Your task to perform on an android device: Open the calendar app, open the side menu, and click the "Day" option Image 0: 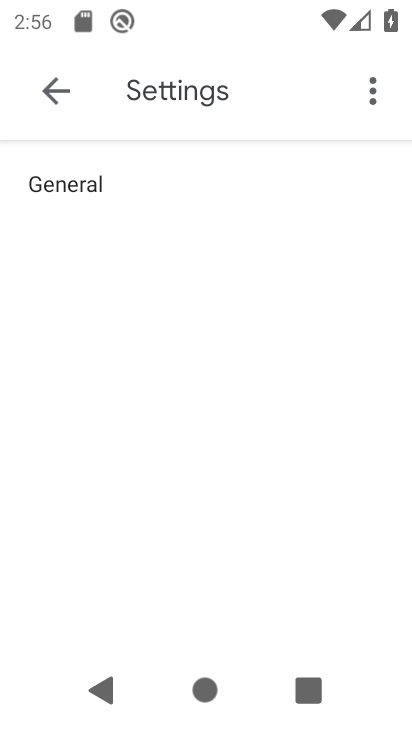
Step 0: press home button
Your task to perform on an android device: Open the calendar app, open the side menu, and click the "Day" option Image 1: 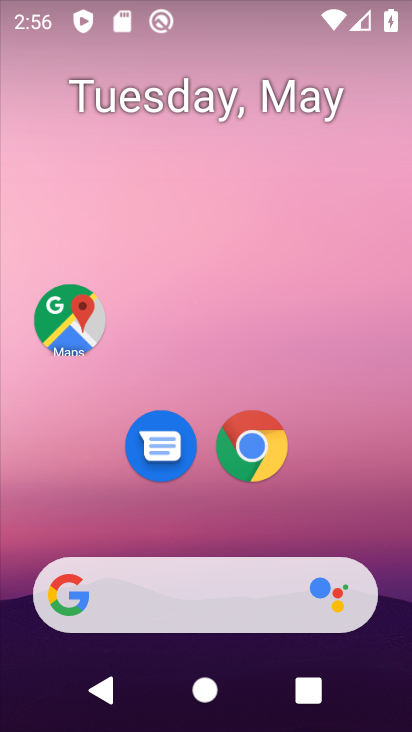
Step 1: drag from (130, 515) to (246, 68)
Your task to perform on an android device: Open the calendar app, open the side menu, and click the "Day" option Image 2: 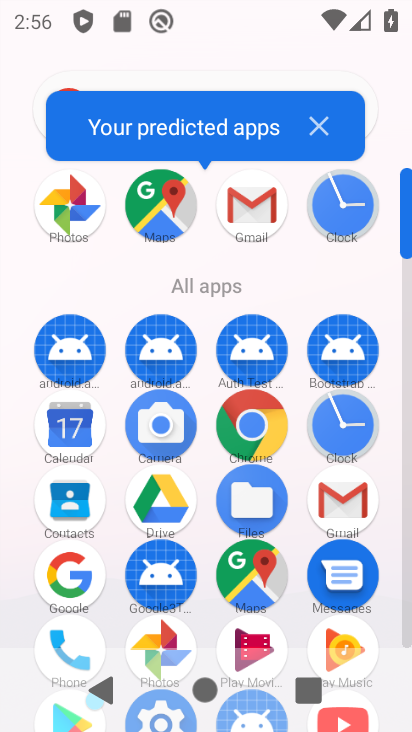
Step 2: click (73, 450)
Your task to perform on an android device: Open the calendar app, open the side menu, and click the "Day" option Image 3: 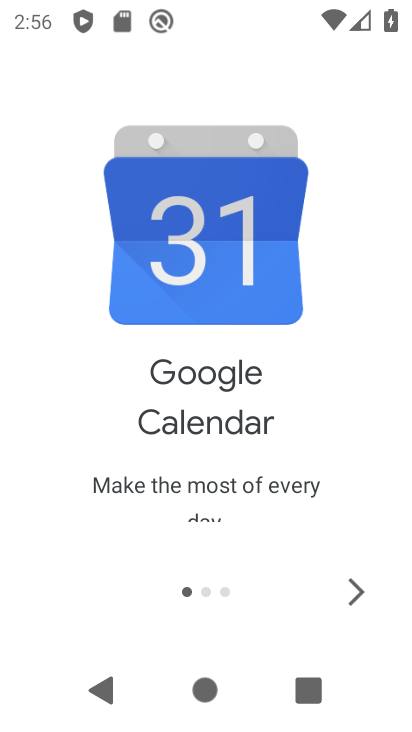
Step 3: click (361, 605)
Your task to perform on an android device: Open the calendar app, open the side menu, and click the "Day" option Image 4: 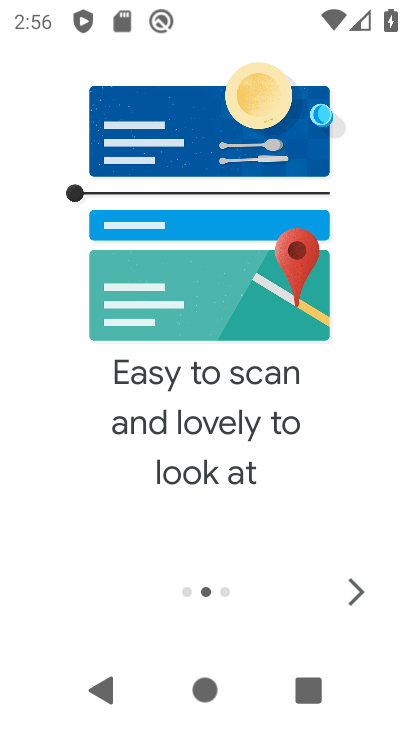
Step 4: click (360, 604)
Your task to perform on an android device: Open the calendar app, open the side menu, and click the "Day" option Image 5: 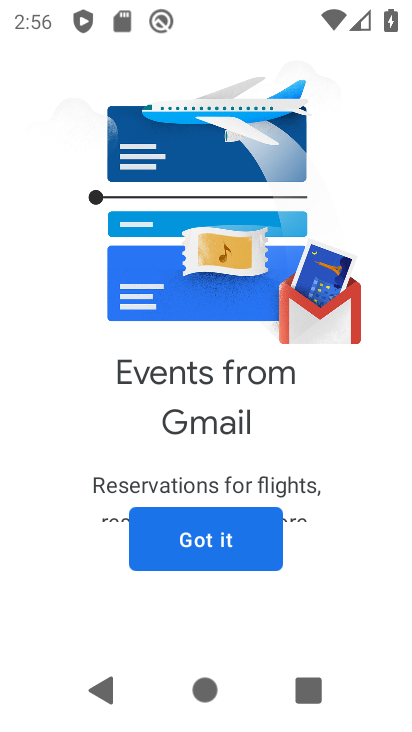
Step 5: click (244, 560)
Your task to perform on an android device: Open the calendar app, open the side menu, and click the "Day" option Image 6: 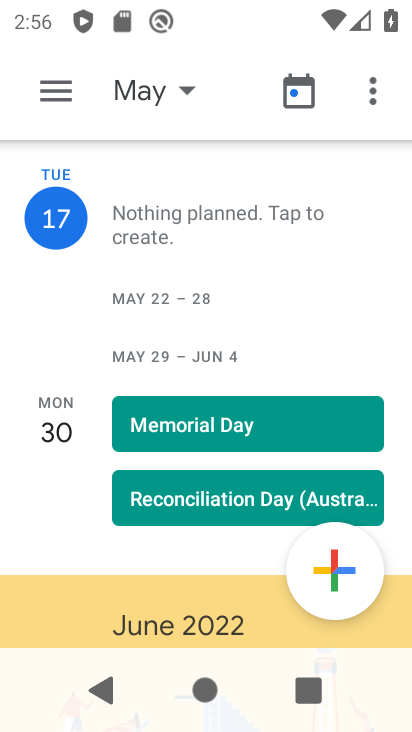
Step 6: click (70, 97)
Your task to perform on an android device: Open the calendar app, open the side menu, and click the "Day" option Image 7: 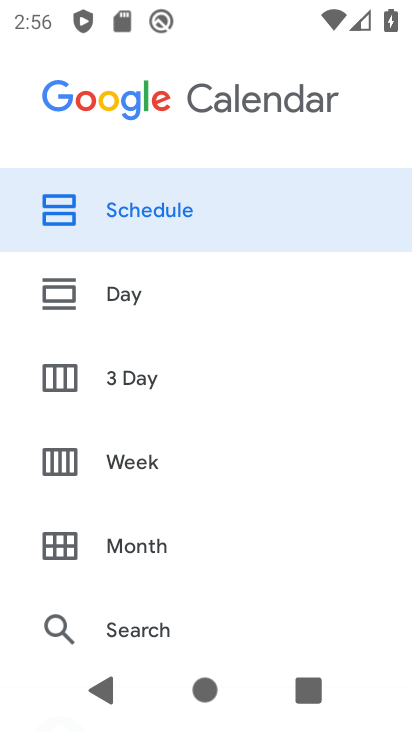
Step 7: click (184, 308)
Your task to perform on an android device: Open the calendar app, open the side menu, and click the "Day" option Image 8: 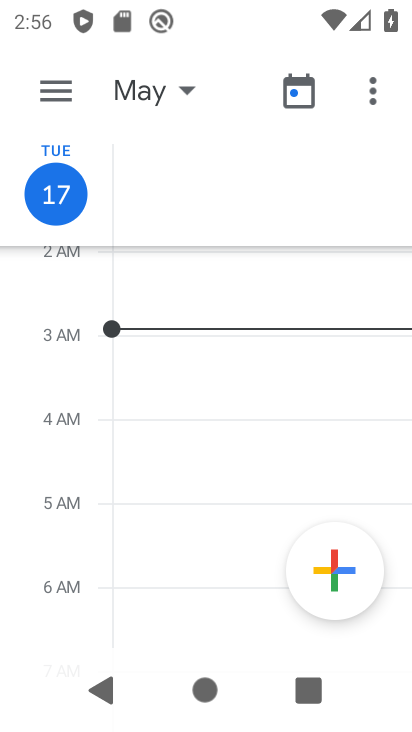
Step 8: task complete